Your task to perform on an android device: Open Chrome and go to the settings page Image 0: 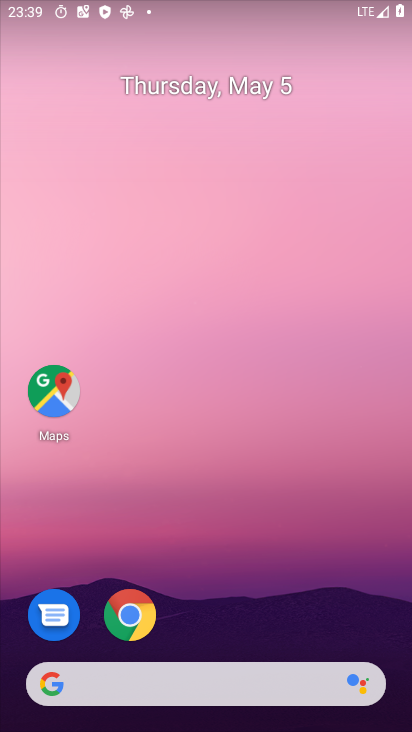
Step 0: click (135, 612)
Your task to perform on an android device: Open Chrome and go to the settings page Image 1: 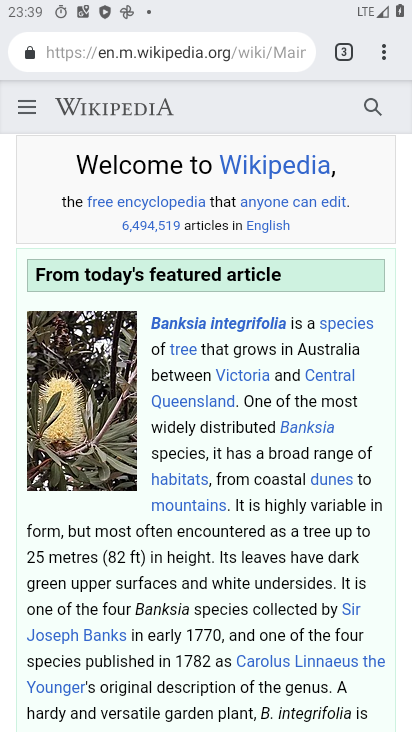
Step 1: click (375, 54)
Your task to perform on an android device: Open Chrome and go to the settings page Image 2: 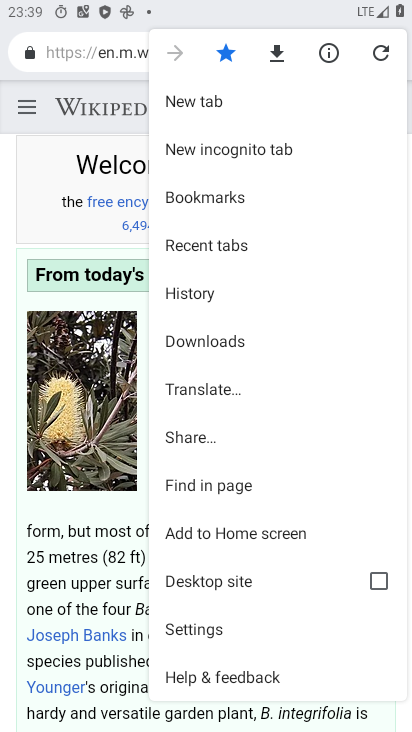
Step 2: click (202, 625)
Your task to perform on an android device: Open Chrome and go to the settings page Image 3: 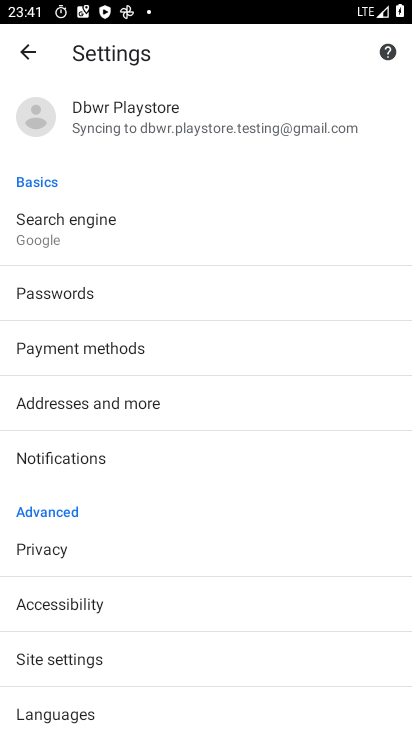
Step 3: task complete